Your task to perform on an android device: remove spam from my inbox in the gmail app Image 0: 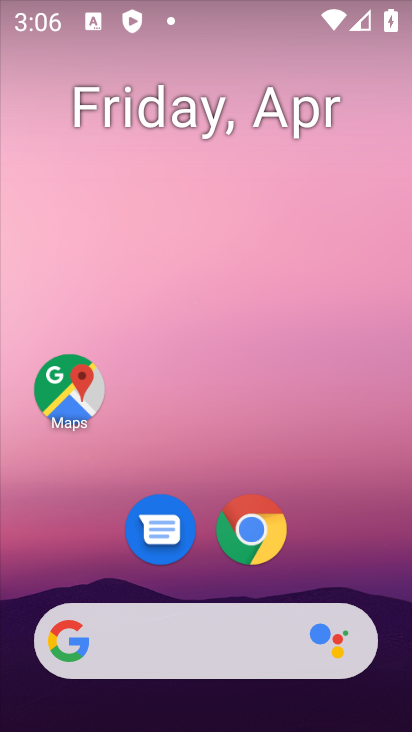
Step 0: click (214, 182)
Your task to perform on an android device: remove spam from my inbox in the gmail app Image 1: 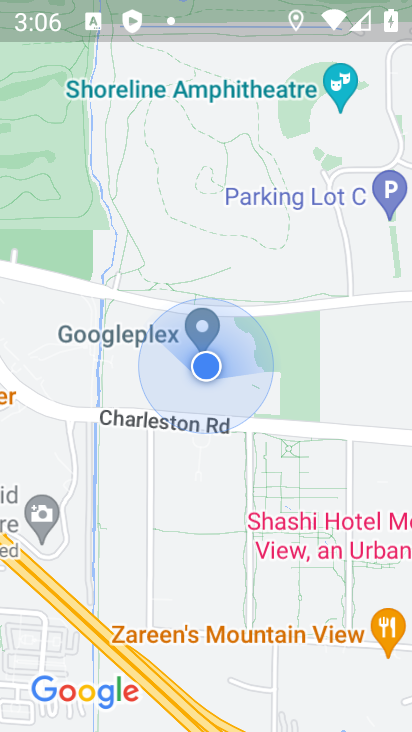
Step 1: press home button
Your task to perform on an android device: remove spam from my inbox in the gmail app Image 2: 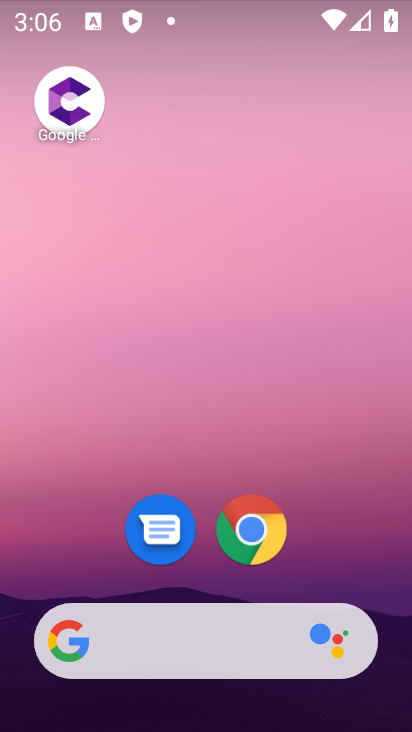
Step 2: drag from (223, 609) to (255, 210)
Your task to perform on an android device: remove spam from my inbox in the gmail app Image 3: 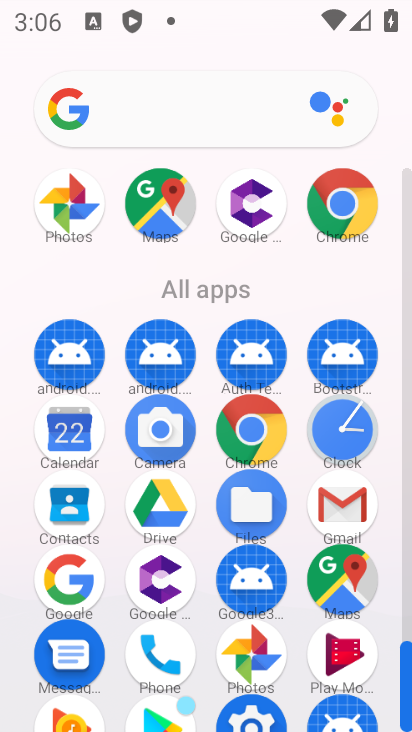
Step 3: click (346, 527)
Your task to perform on an android device: remove spam from my inbox in the gmail app Image 4: 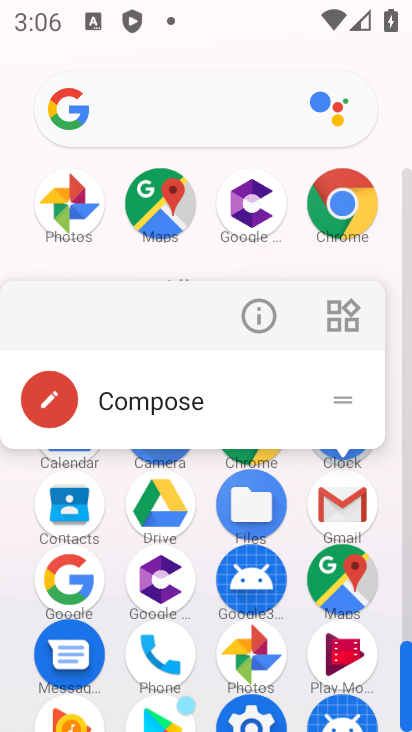
Step 4: click (332, 506)
Your task to perform on an android device: remove spam from my inbox in the gmail app Image 5: 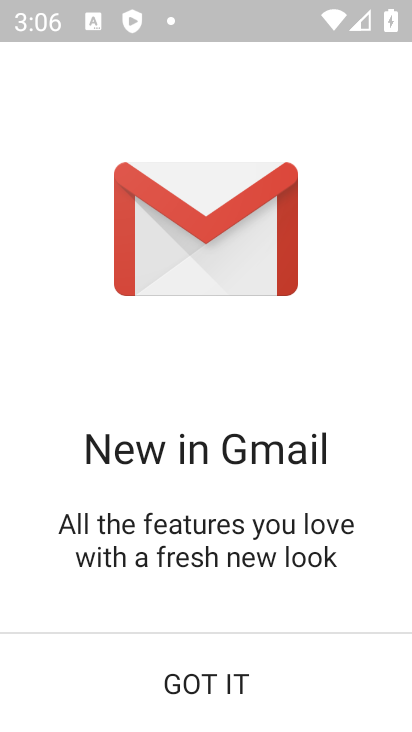
Step 5: click (186, 694)
Your task to perform on an android device: remove spam from my inbox in the gmail app Image 6: 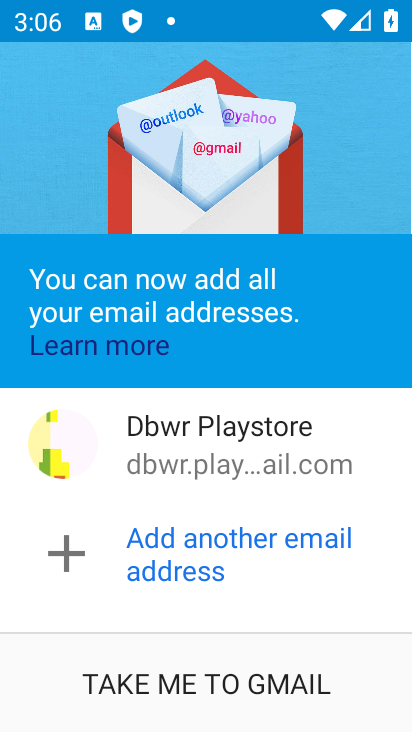
Step 6: click (186, 694)
Your task to perform on an android device: remove spam from my inbox in the gmail app Image 7: 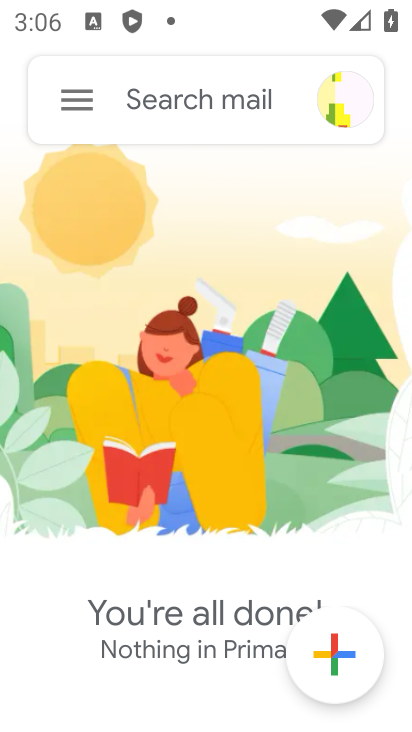
Step 7: click (71, 118)
Your task to perform on an android device: remove spam from my inbox in the gmail app Image 8: 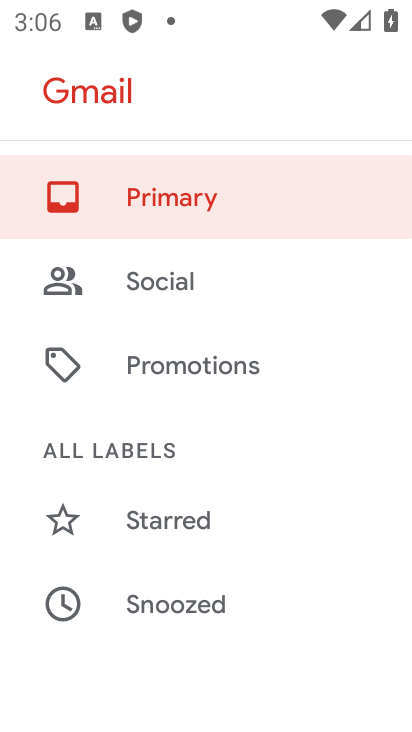
Step 8: drag from (181, 317) to (124, 563)
Your task to perform on an android device: remove spam from my inbox in the gmail app Image 9: 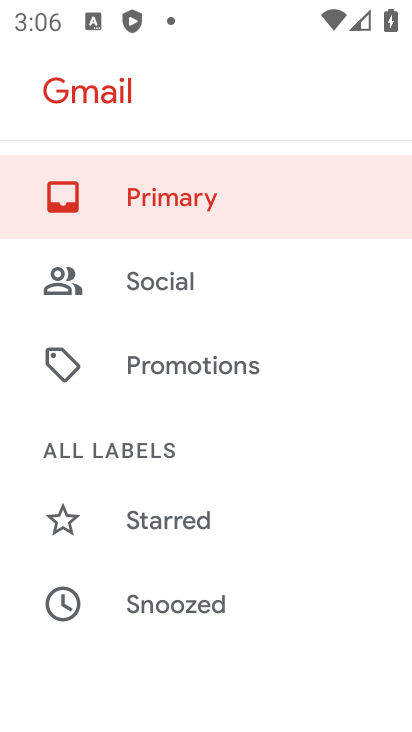
Step 9: drag from (124, 563) to (146, 276)
Your task to perform on an android device: remove spam from my inbox in the gmail app Image 10: 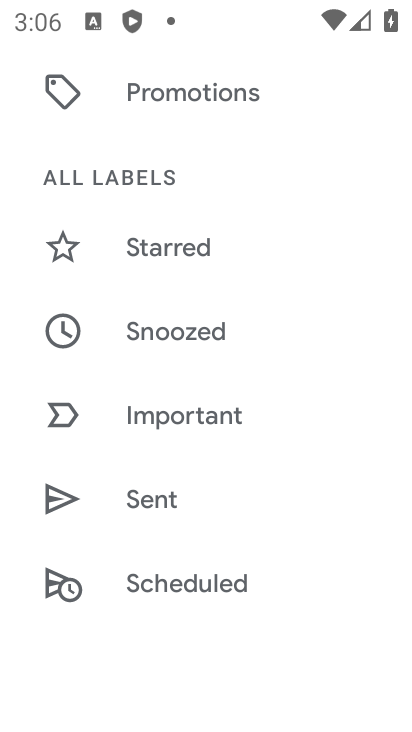
Step 10: drag from (170, 484) to (183, 92)
Your task to perform on an android device: remove spam from my inbox in the gmail app Image 11: 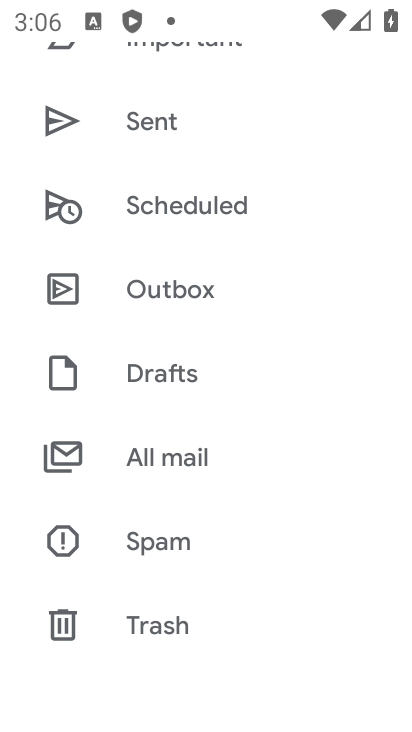
Step 11: drag from (192, 369) to (216, 108)
Your task to perform on an android device: remove spam from my inbox in the gmail app Image 12: 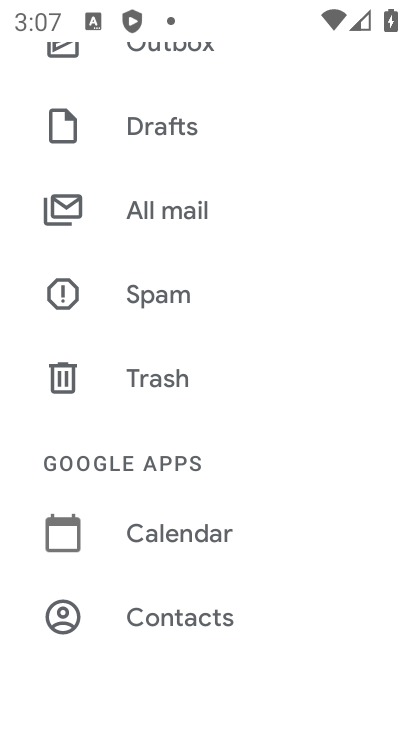
Step 12: click (199, 305)
Your task to perform on an android device: remove spam from my inbox in the gmail app Image 13: 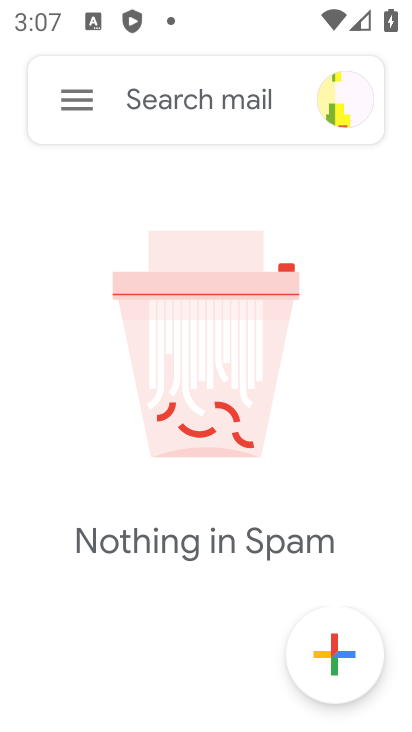
Step 13: task complete